Your task to perform on an android device: What's the weather like in Chicago? Image 0: 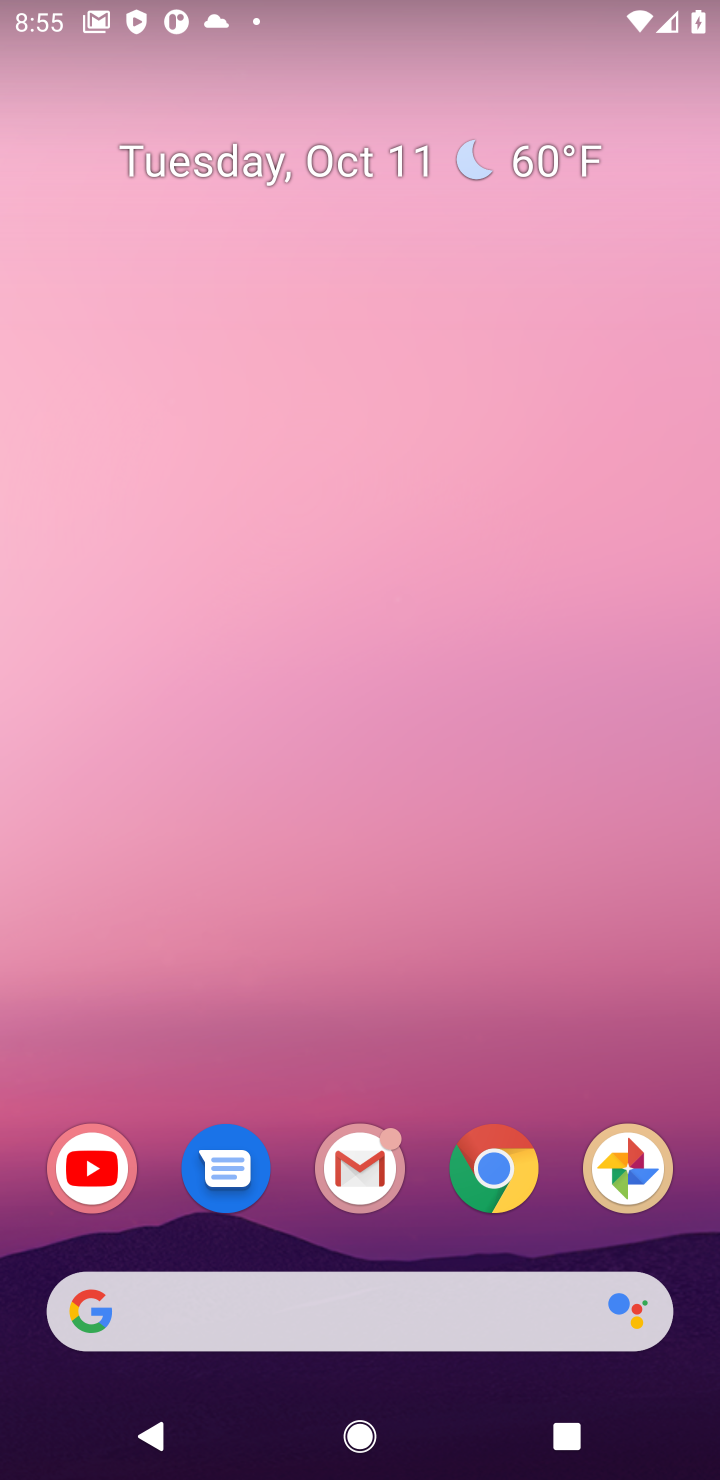
Step 0: click (493, 1182)
Your task to perform on an android device: What's the weather like in Chicago? Image 1: 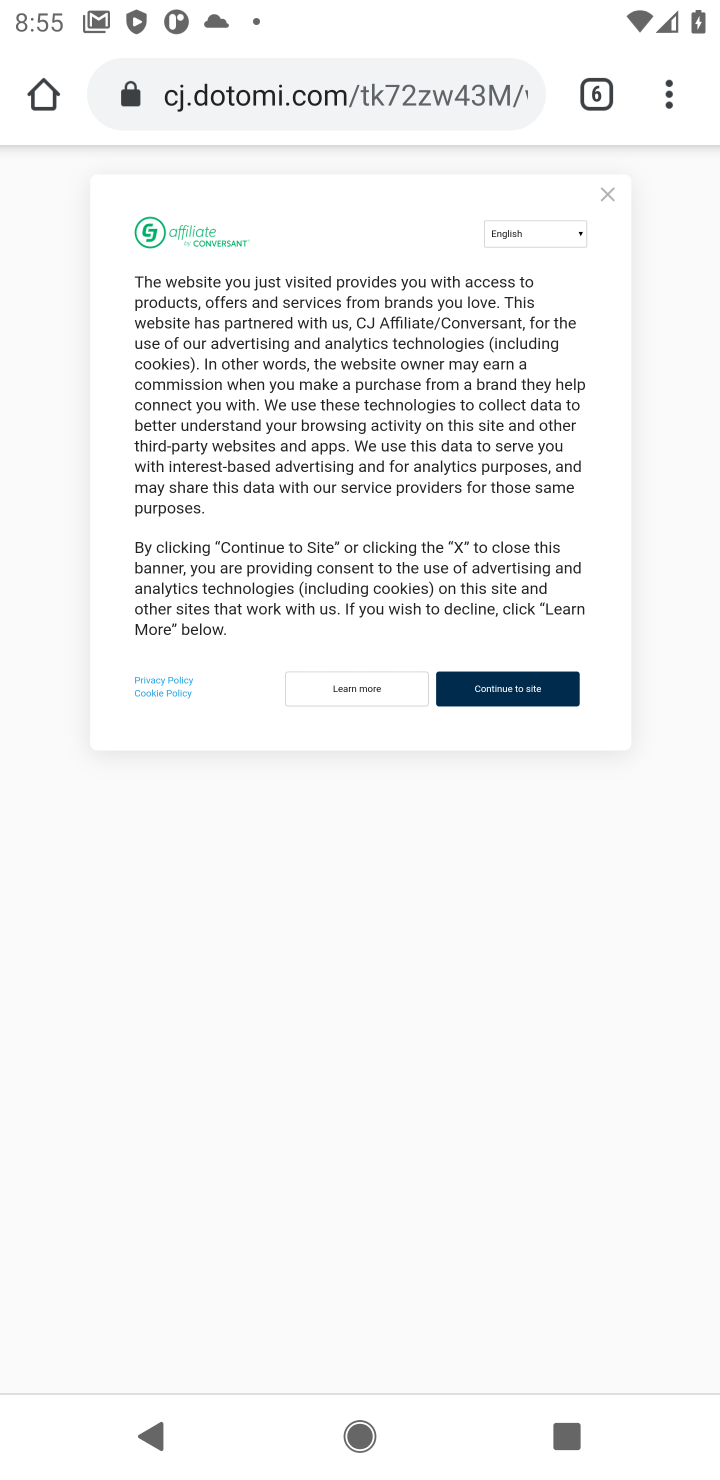
Step 1: click (328, 104)
Your task to perform on an android device: What's the weather like in Chicago? Image 2: 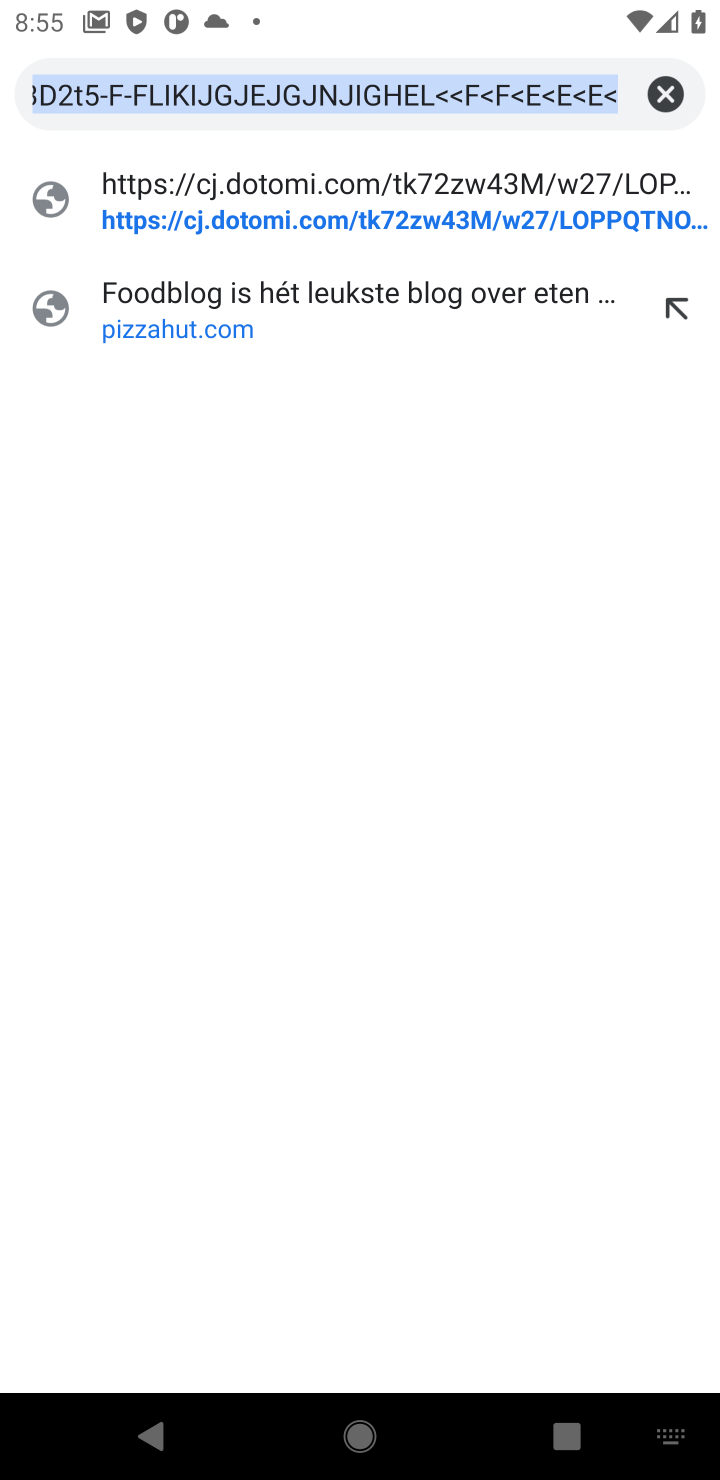
Step 2: click (671, 94)
Your task to perform on an android device: What's the weather like in Chicago? Image 3: 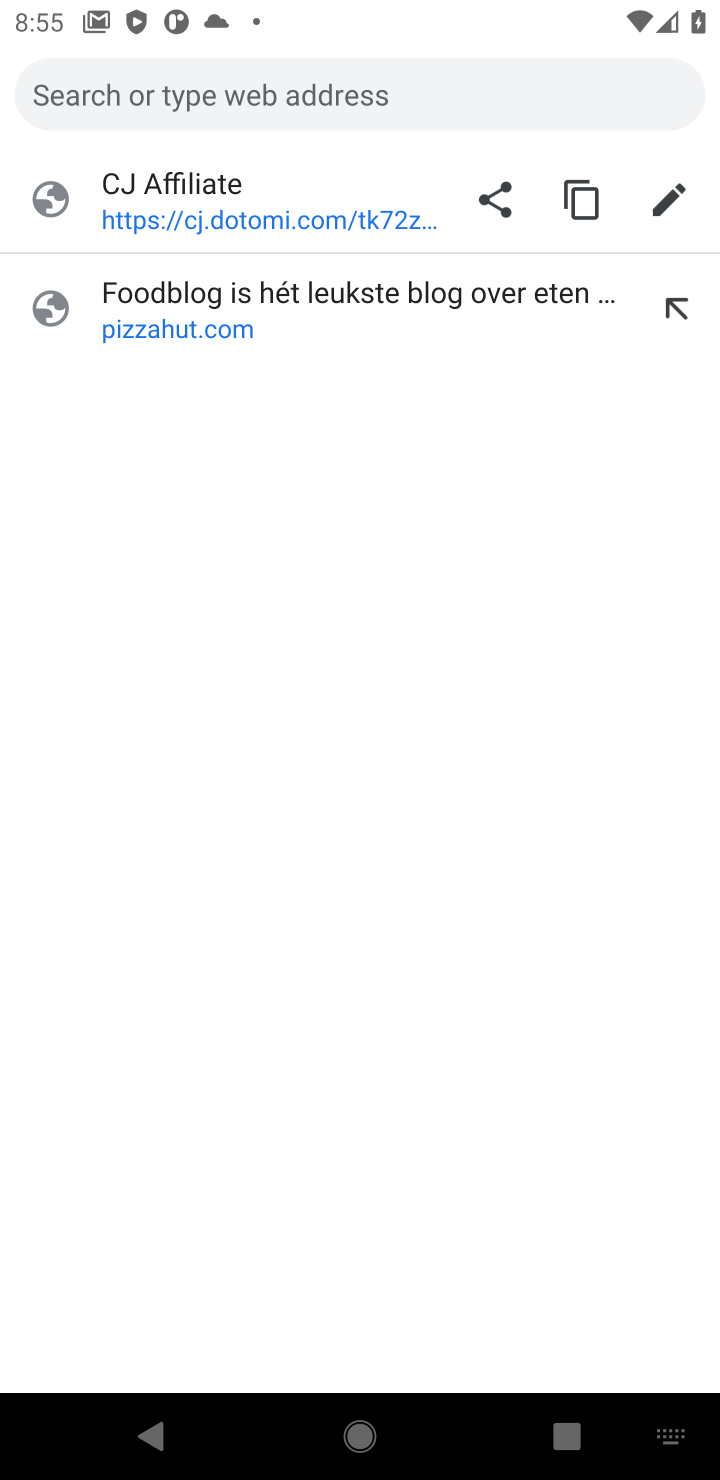
Step 3: type "weather like in chicago"
Your task to perform on an android device: What's the weather like in Chicago? Image 4: 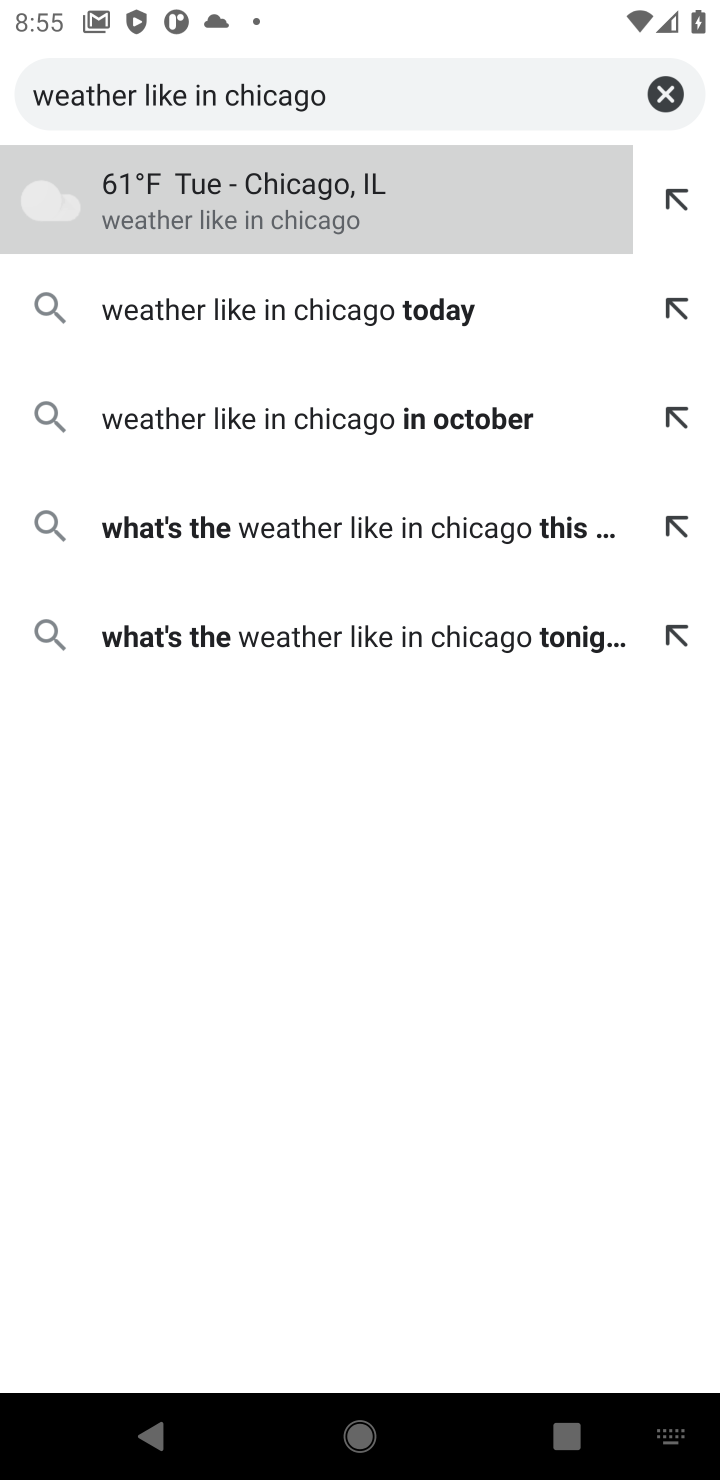
Step 4: click (344, 320)
Your task to perform on an android device: What's the weather like in Chicago? Image 5: 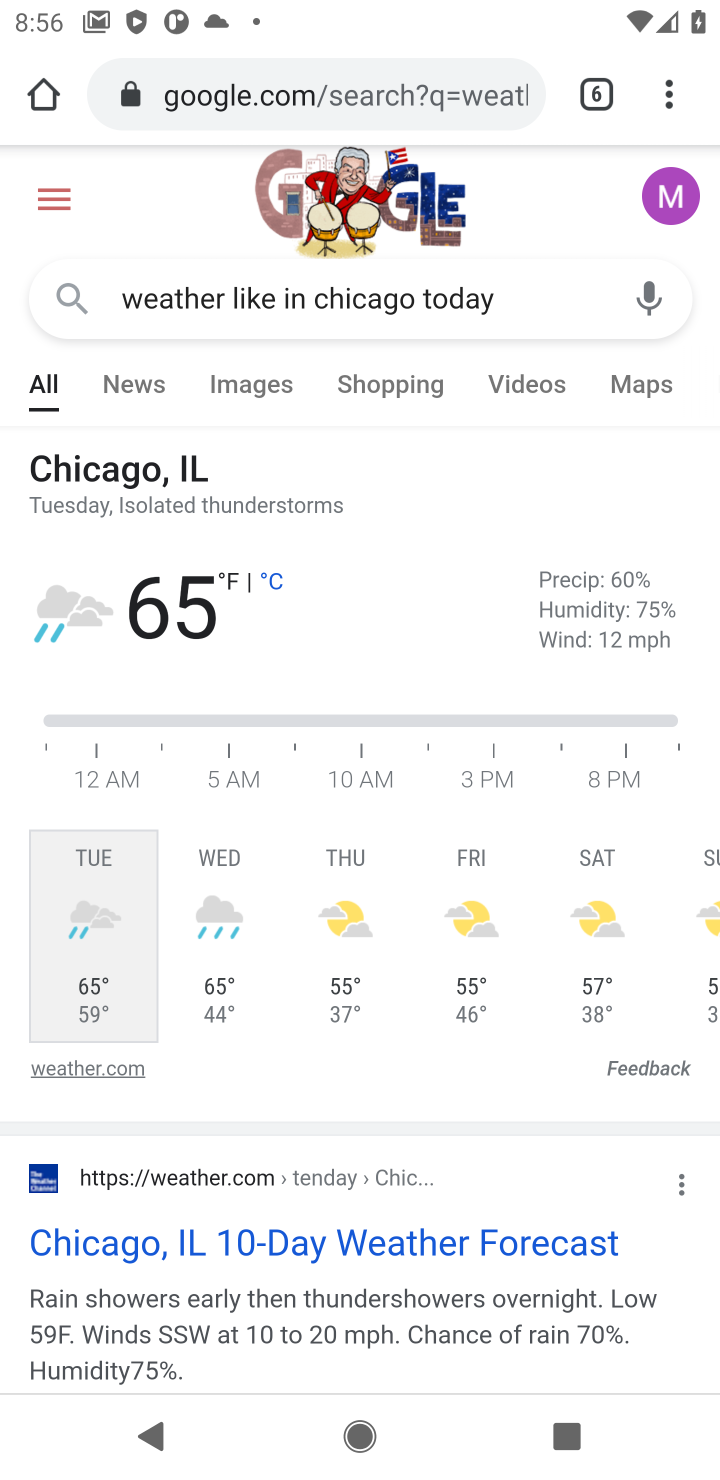
Step 5: task complete